Your task to perform on an android device: toggle show notifications on the lock screen Image 0: 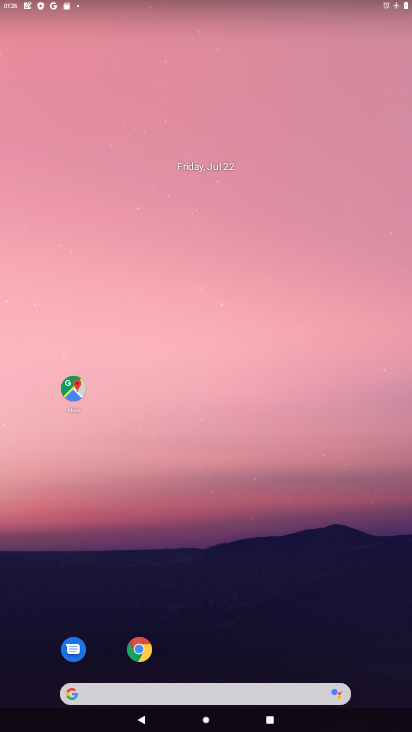
Step 0: drag from (297, 417) to (274, 43)
Your task to perform on an android device: toggle show notifications on the lock screen Image 1: 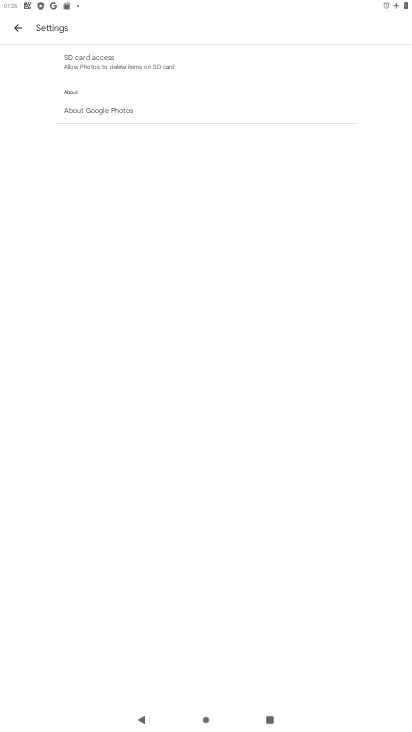
Step 1: press home button
Your task to perform on an android device: toggle show notifications on the lock screen Image 2: 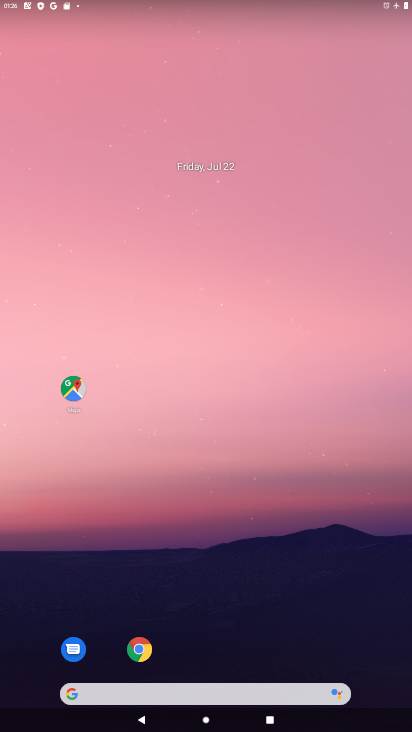
Step 2: drag from (303, 596) to (240, 93)
Your task to perform on an android device: toggle show notifications on the lock screen Image 3: 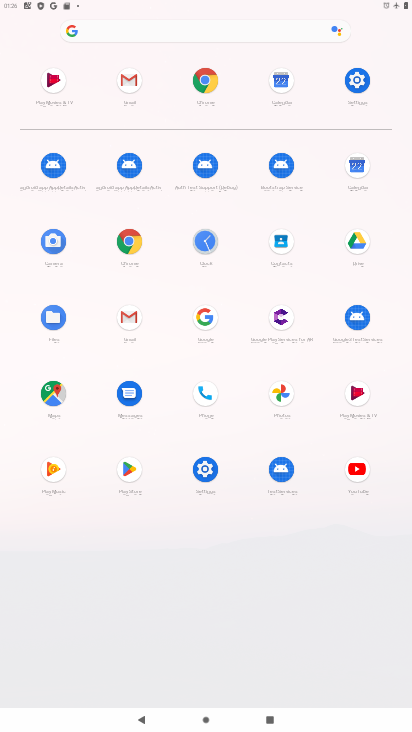
Step 3: click (358, 77)
Your task to perform on an android device: toggle show notifications on the lock screen Image 4: 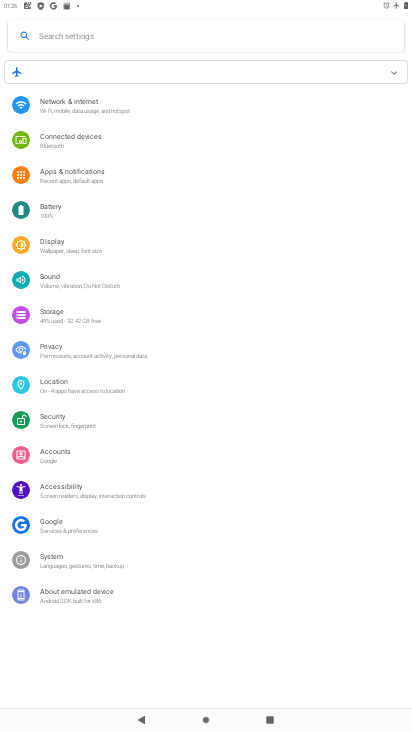
Step 4: click (61, 173)
Your task to perform on an android device: toggle show notifications on the lock screen Image 5: 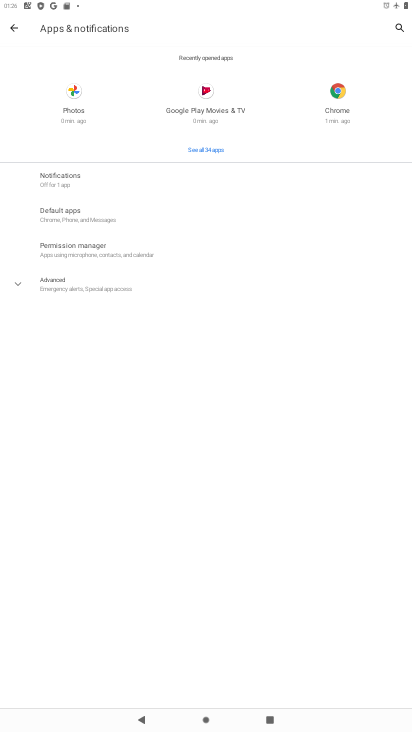
Step 5: click (61, 173)
Your task to perform on an android device: toggle show notifications on the lock screen Image 6: 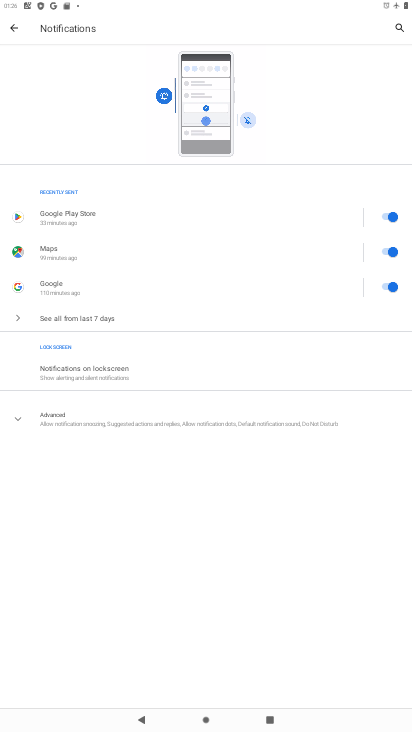
Step 6: click (113, 371)
Your task to perform on an android device: toggle show notifications on the lock screen Image 7: 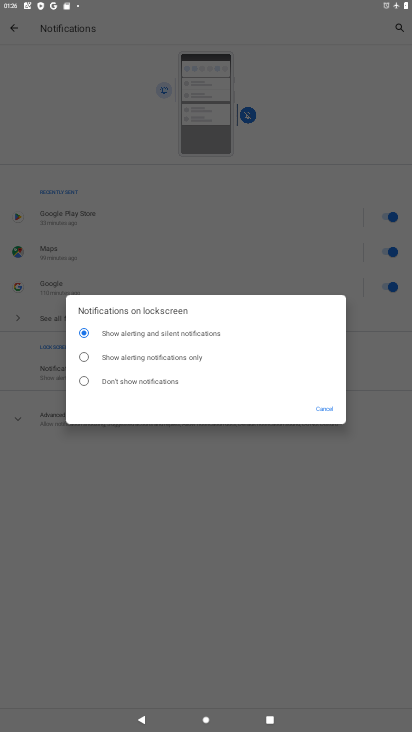
Step 7: click (168, 349)
Your task to perform on an android device: toggle show notifications on the lock screen Image 8: 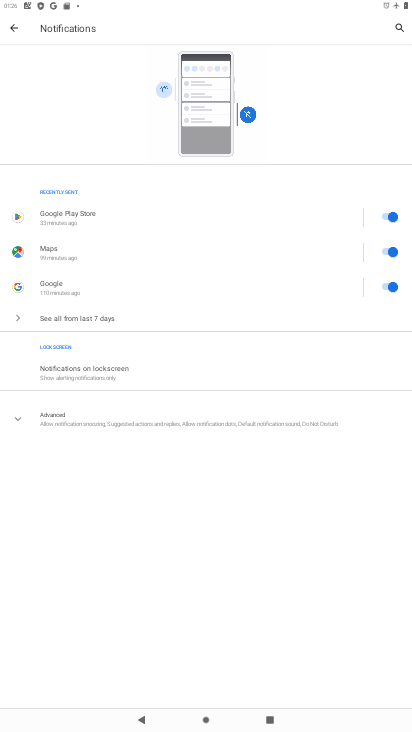
Step 8: task complete